Your task to perform on an android device: see sites visited before in the chrome app Image 0: 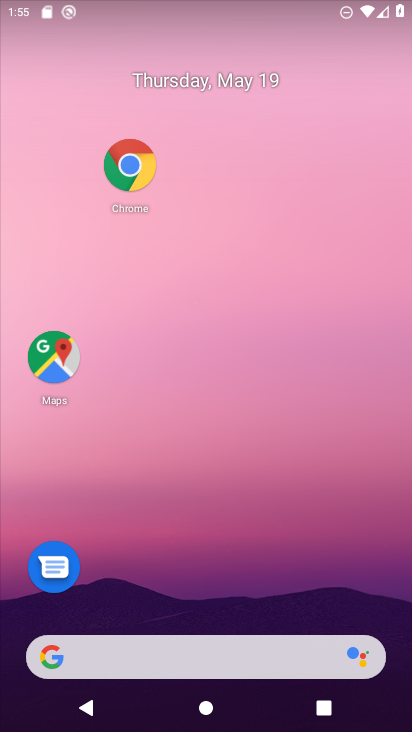
Step 0: drag from (206, 472) to (273, 236)
Your task to perform on an android device: see sites visited before in the chrome app Image 1: 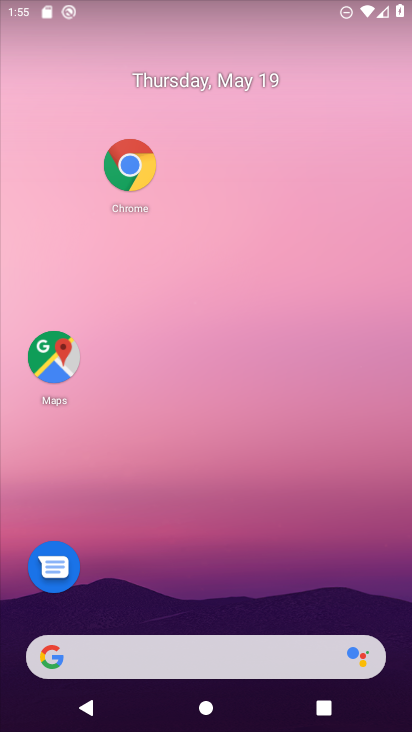
Step 1: click (129, 168)
Your task to perform on an android device: see sites visited before in the chrome app Image 2: 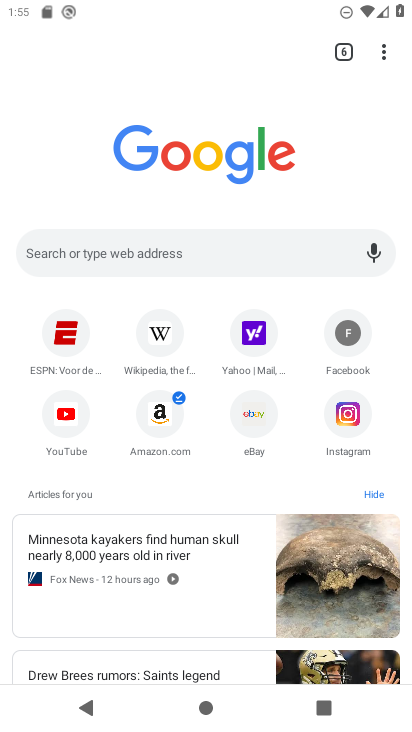
Step 2: click (378, 38)
Your task to perform on an android device: see sites visited before in the chrome app Image 3: 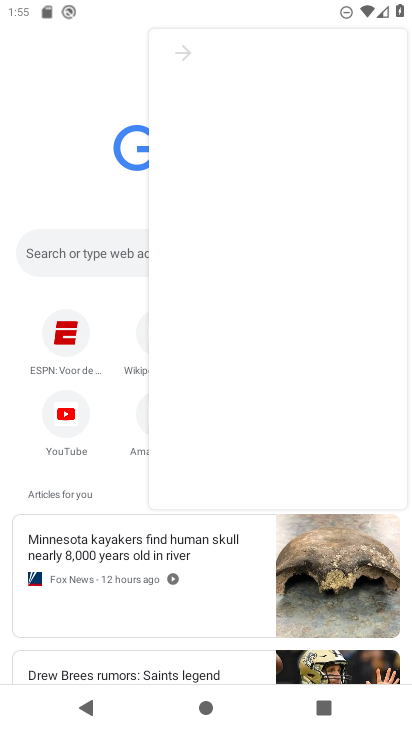
Step 3: click (385, 46)
Your task to perform on an android device: see sites visited before in the chrome app Image 4: 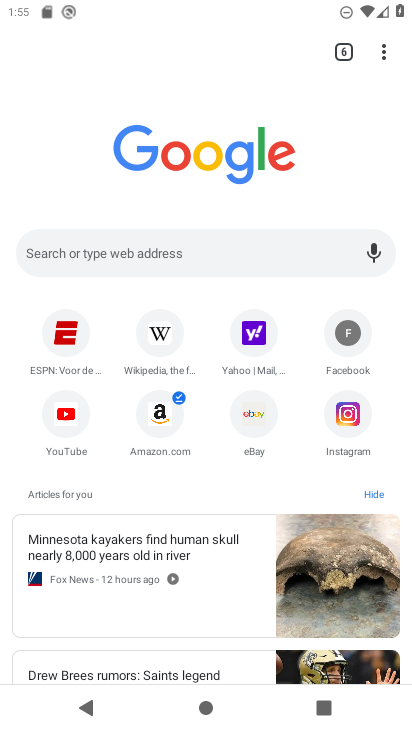
Step 4: click (382, 56)
Your task to perform on an android device: see sites visited before in the chrome app Image 5: 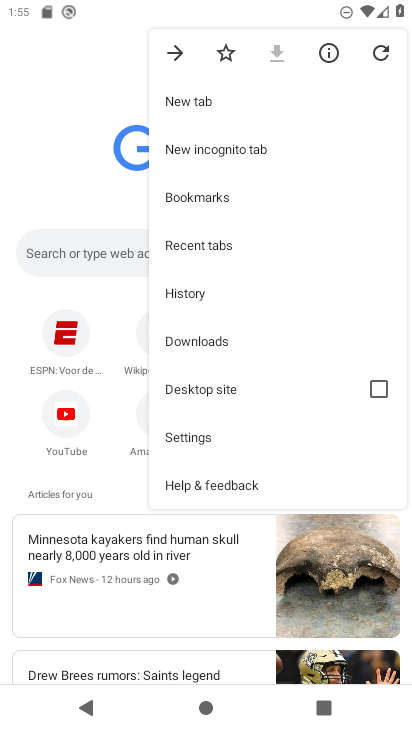
Step 5: click (243, 439)
Your task to perform on an android device: see sites visited before in the chrome app Image 6: 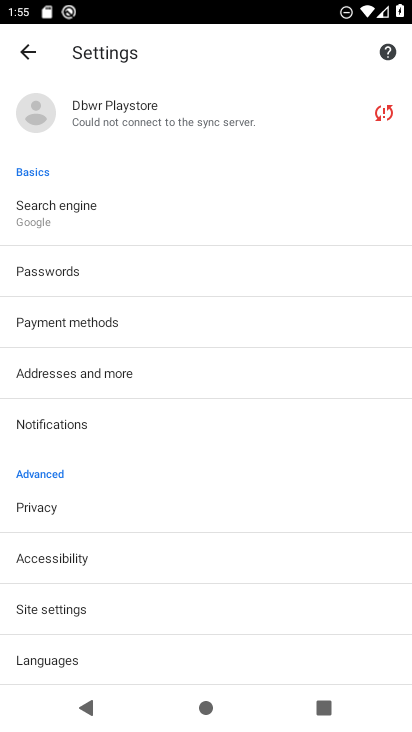
Step 6: drag from (140, 471) to (159, 115)
Your task to perform on an android device: see sites visited before in the chrome app Image 7: 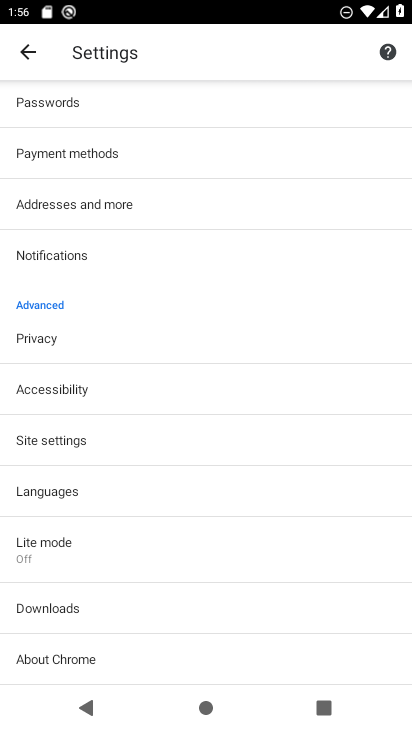
Step 7: drag from (278, 225) to (263, 427)
Your task to perform on an android device: see sites visited before in the chrome app Image 8: 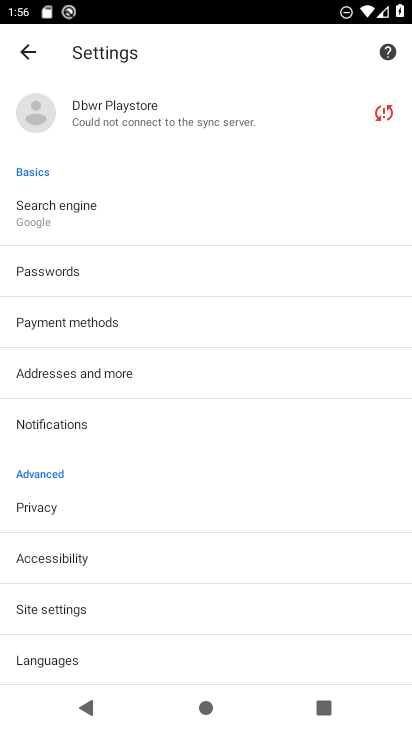
Step 8: drag from (243, 456) to (288, 44)
Your task to perform on an android device: see sites visited before in the chrome app Image 9: 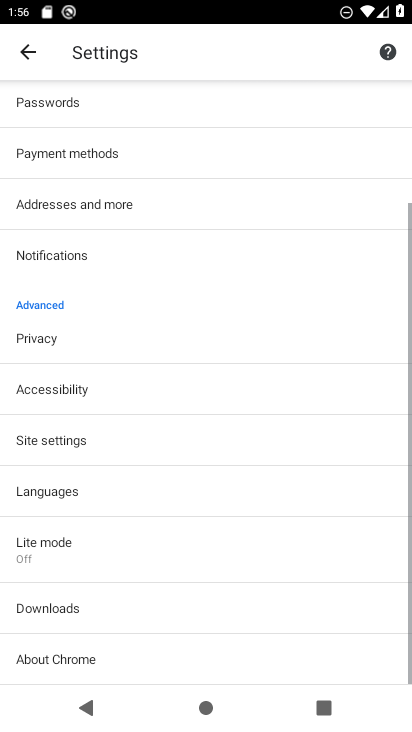
Step 9: drag from (217, 504) to (267, 132)
Your task to perform on an android device: see sites visited before in the chrome app Image 10: 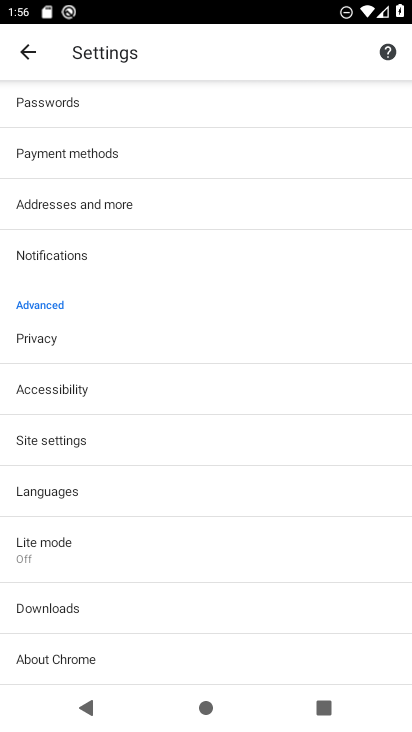
Step 10: click (84, 336)
Your task to perform on an android device: see sites visited before in the chrome app Image 11: 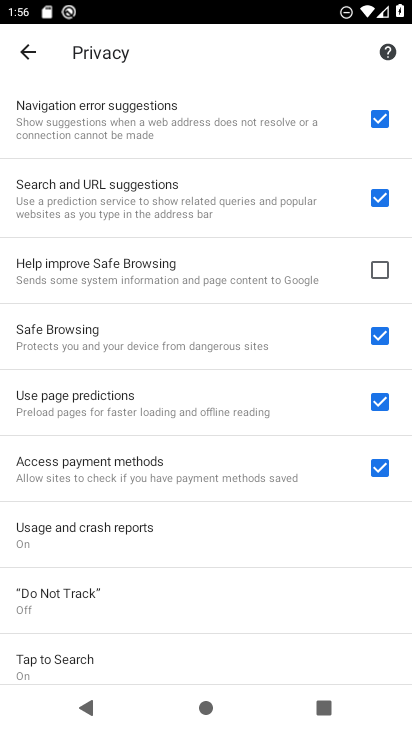
Step 11: drag from (161, 524) to (231, 134)
Your task to perform on an android device: see sites visited before in the chrome app Image 12: 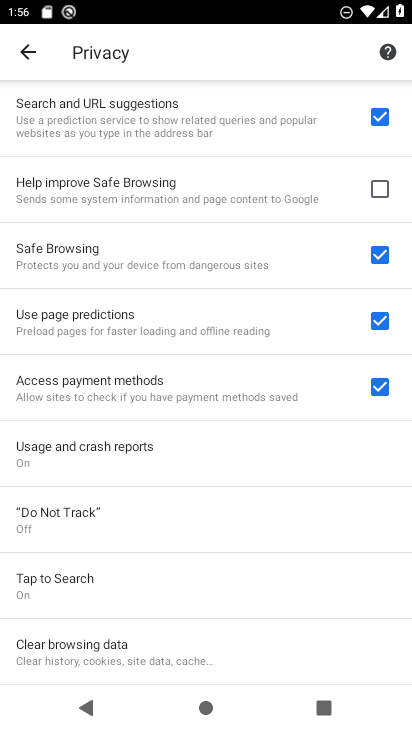
Step 12: press back button
Your task to perform on an android device: see sites visited before in the chrome app Image 13: 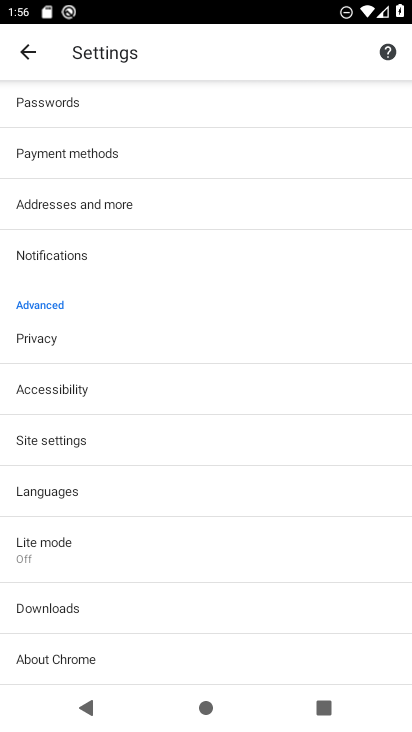
Step 13: click (151, 391)
Your task to perform on an android device: see sites visited before in the chrome app Image 14: 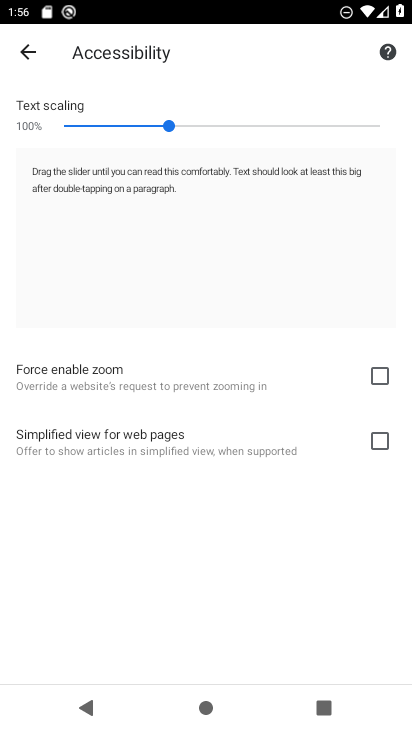
Step 14: task complete